Your task to perform on an android device: Search for logitech g pro on target, select the first entry, add it to the cart, then select checkout. Image 0: 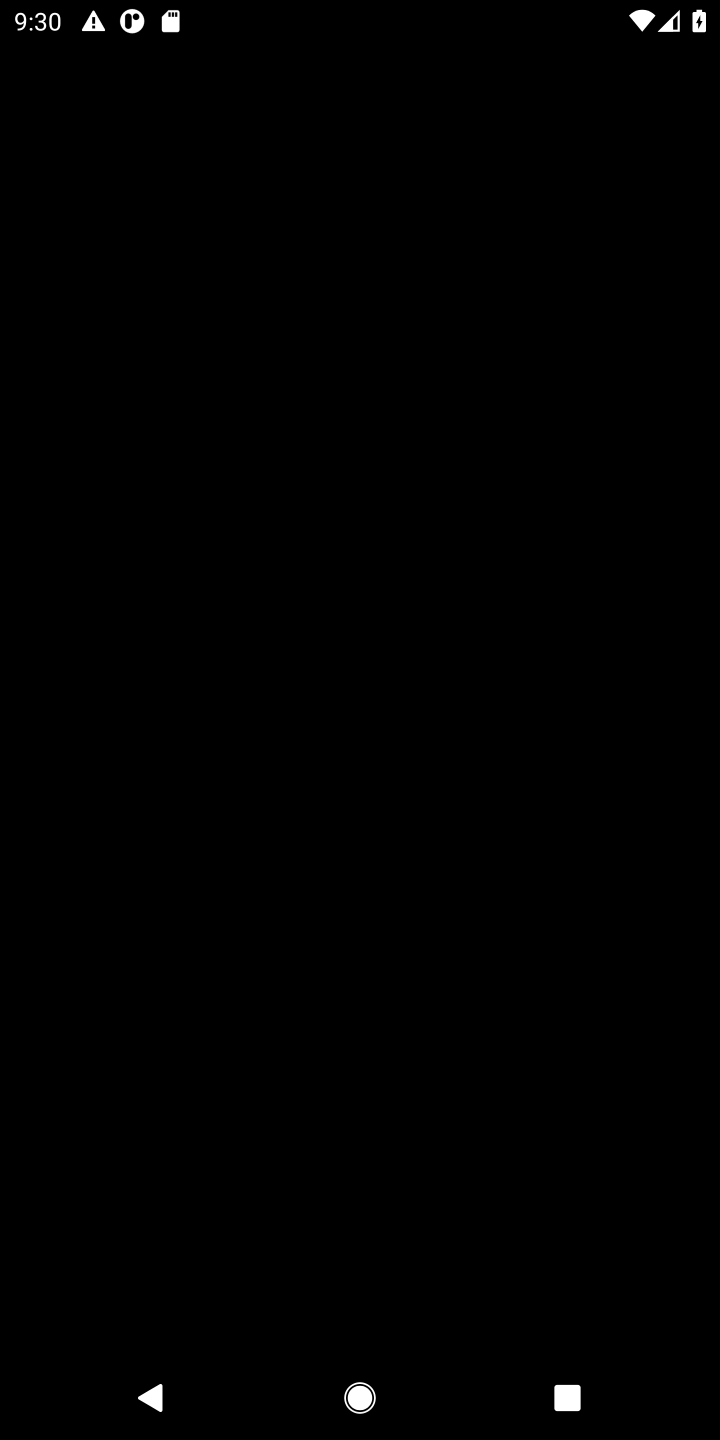
Step 0: press home button
Your task to perform on an android device: Search for logitech g pro on target, select the first entry, add it to the cart, then select checkout. Image 1: 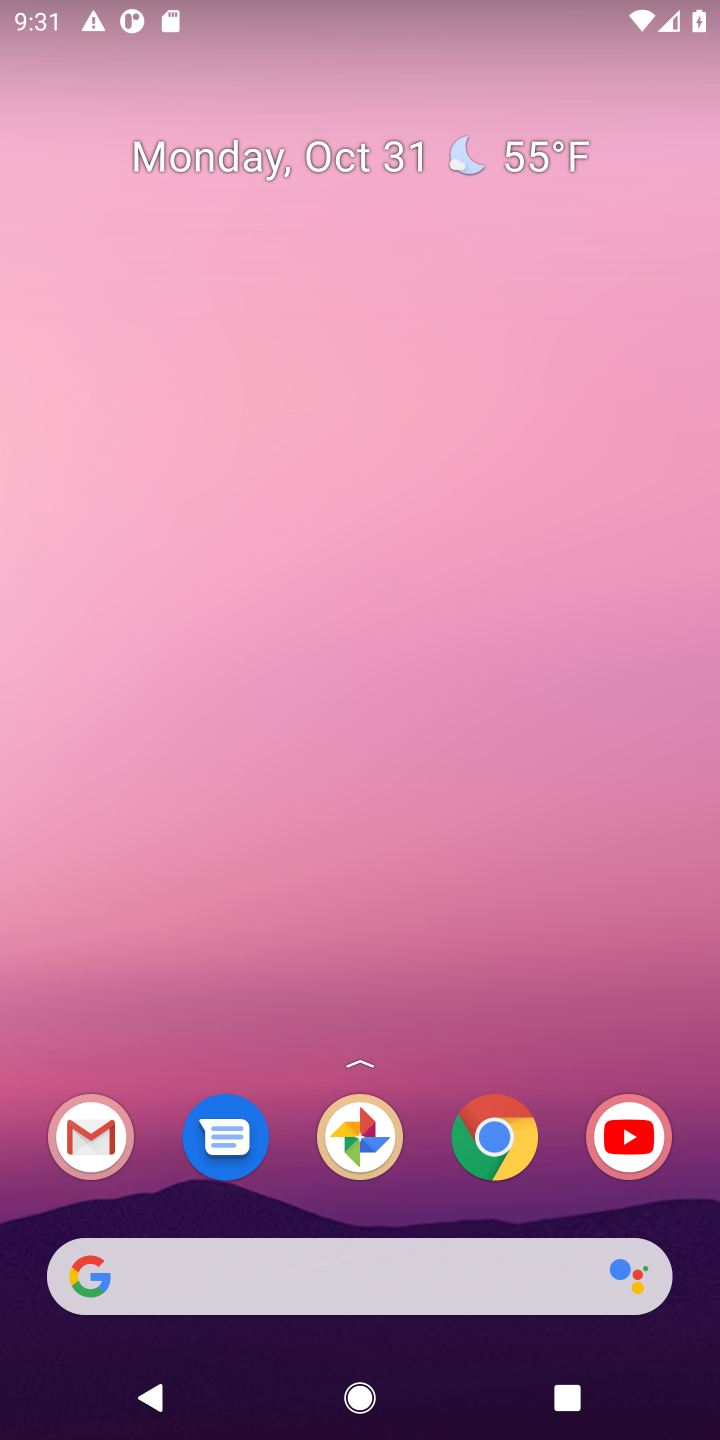
Step 1: click (526, 1153)
Your task to perform on an android device: Search for logitech g pro on target, select the first entry, add it to the cart, then select checkout. Image 2: 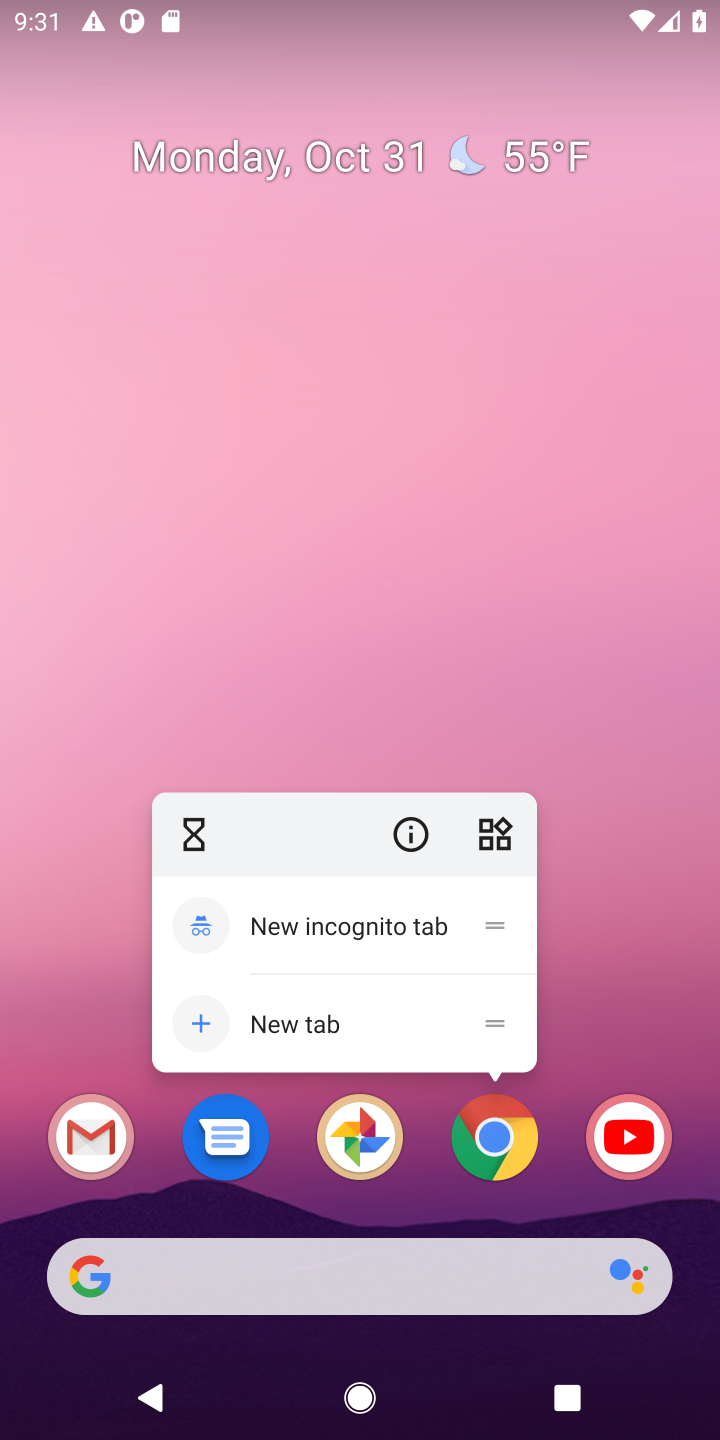
Step 2: click (492, 1145)
Your task to perform on an android device: Search for logitech g pro on target, select the first entry, add it to the cart, then select checkout. Image 3: 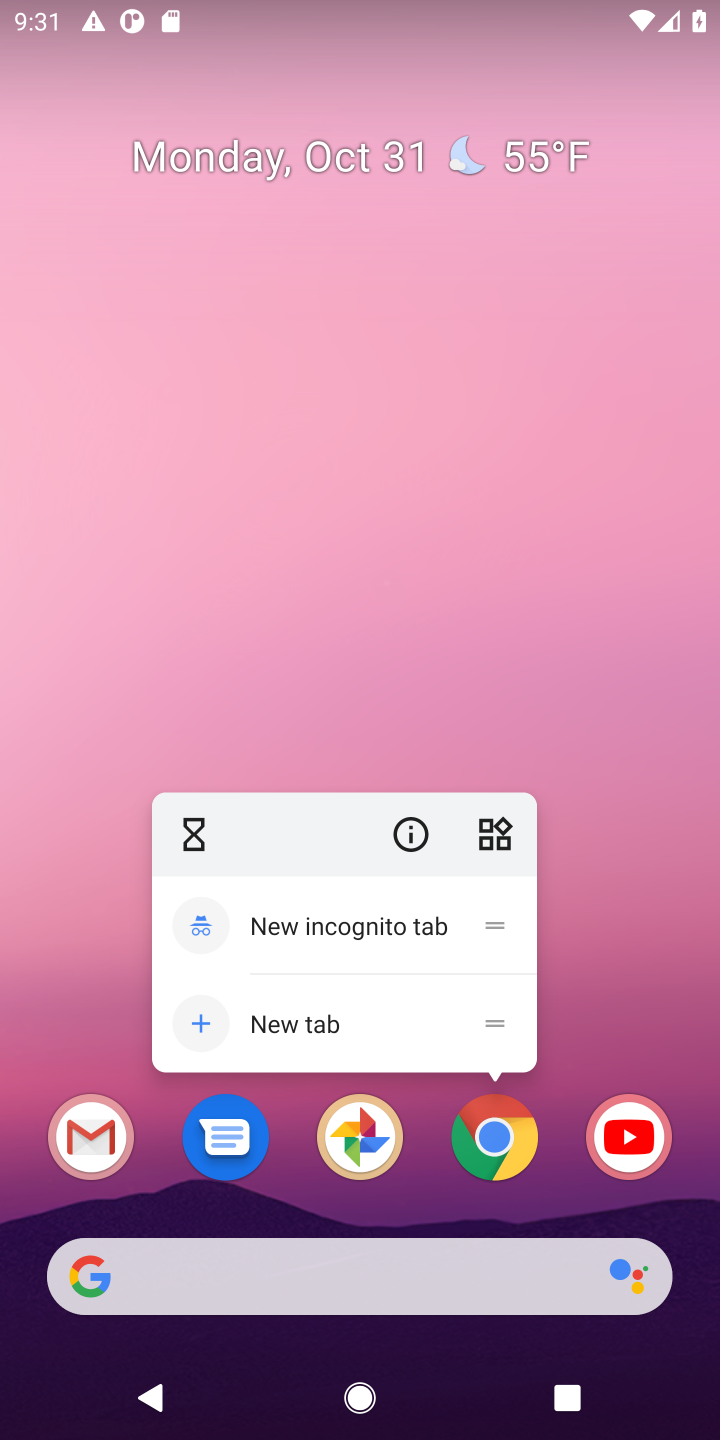
Step 3: click (492, 1145)
Your task to perform on an android device: Search for logitech g pro on target, select the first entry, add it to the cart, then select checkout. Image 4: 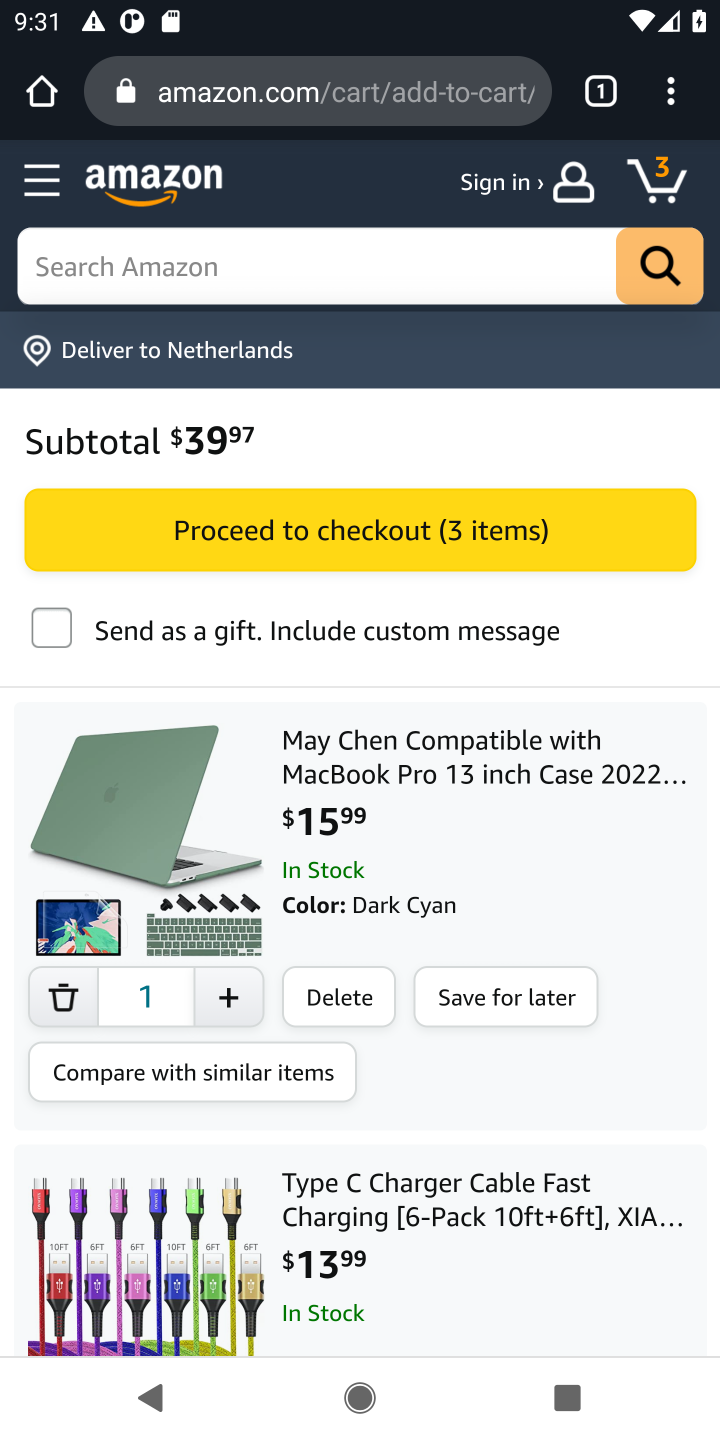
Step 4: click (300, 108)
Your task to perform on an android device: Search for logitech g pro on target, select the first entry, add it to the cart, then select checkout. Image 5: 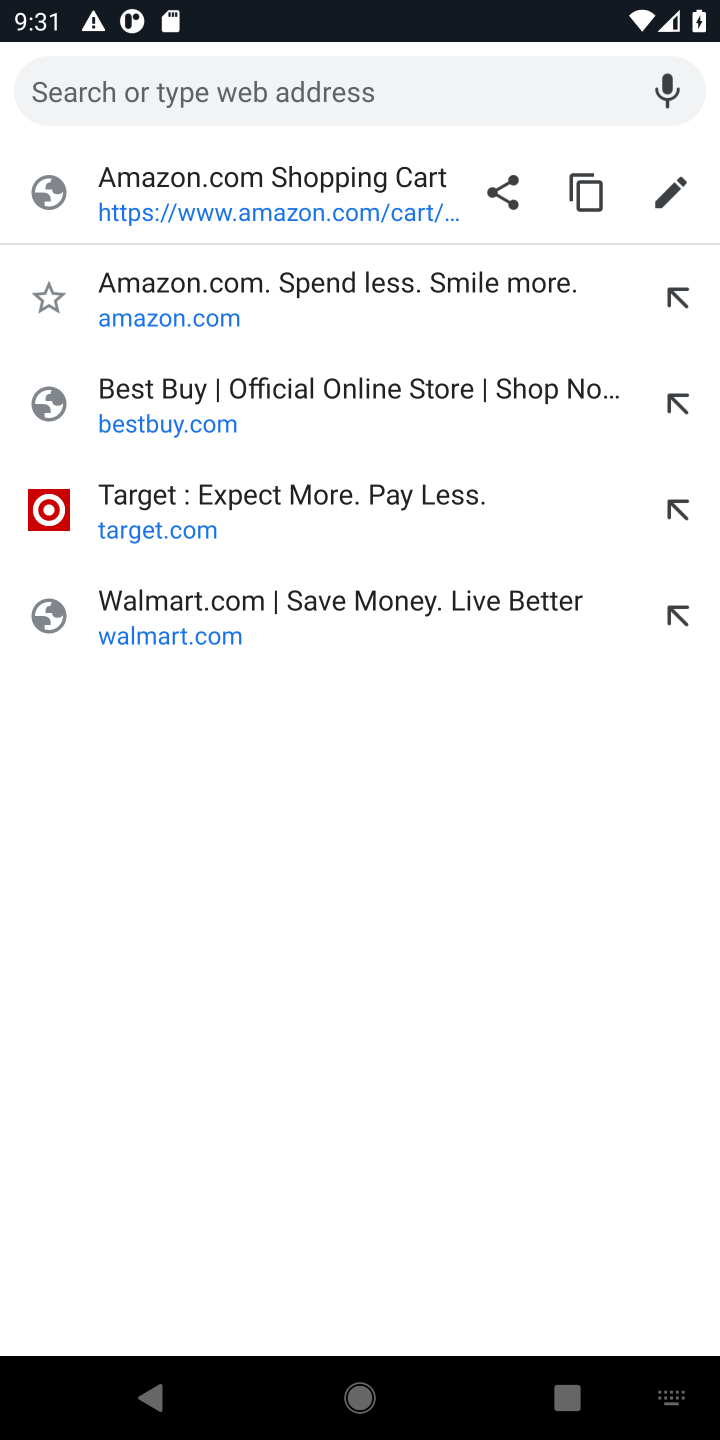
Step 5: type "target.com"
Your task to perform on an android device: Search for logitech g pro on target, select the first entry, add it to the cart, then select checkout. Image 6: 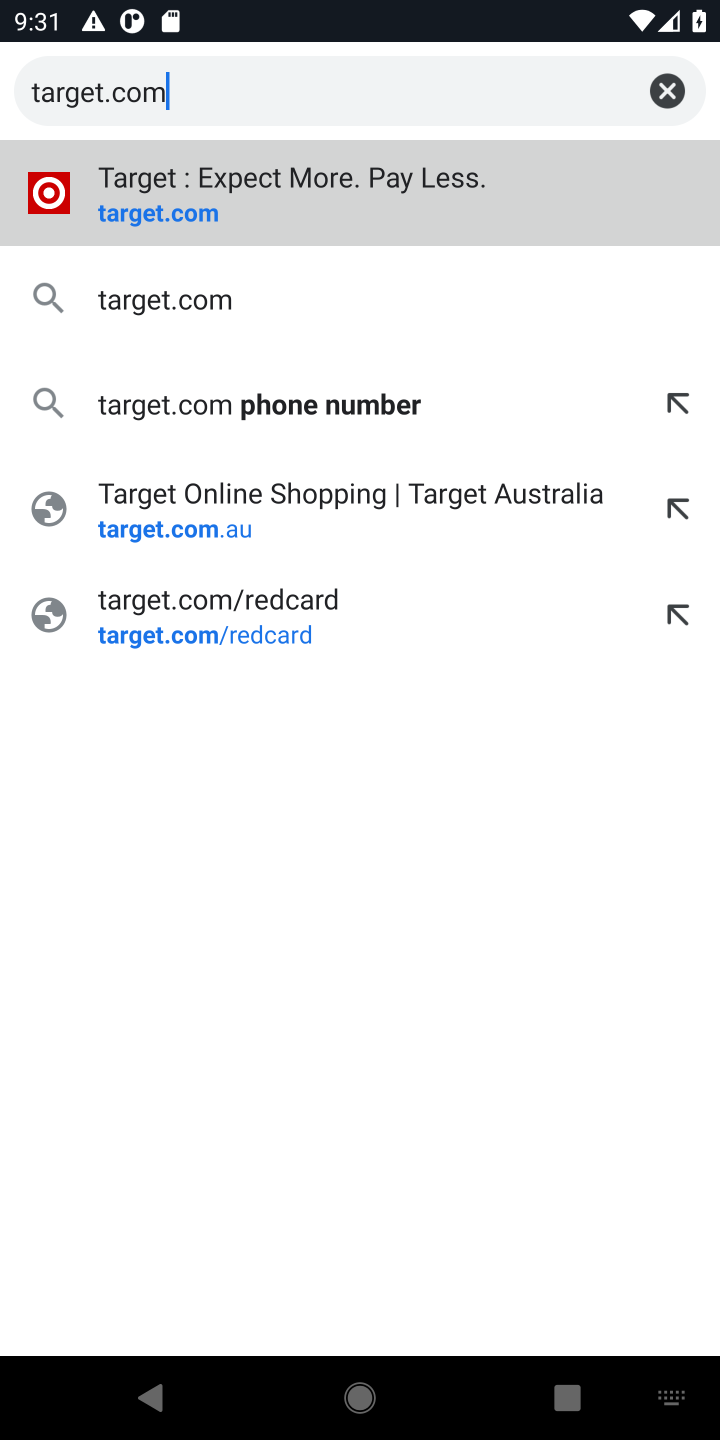
Step 6: click (162, 226)
Your task to perform on an android device: Search for logitech g pro on target, select the first entry, add it to the cart, then select checkout. Image 7: 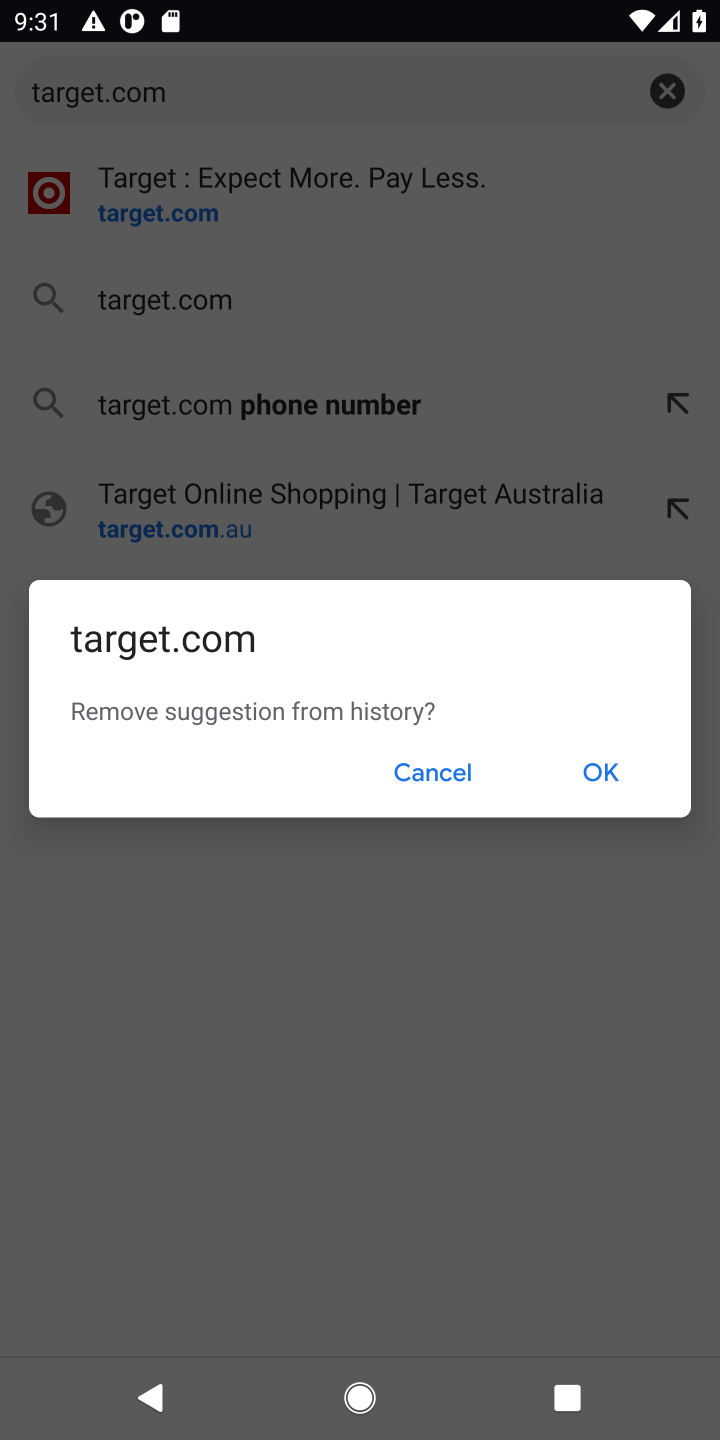
Step 7: click (446, 784)
Your task to perform on an android device: Search for logitech g pro on target, select the first entry, add it to the cart, then select checkout. Image 8: 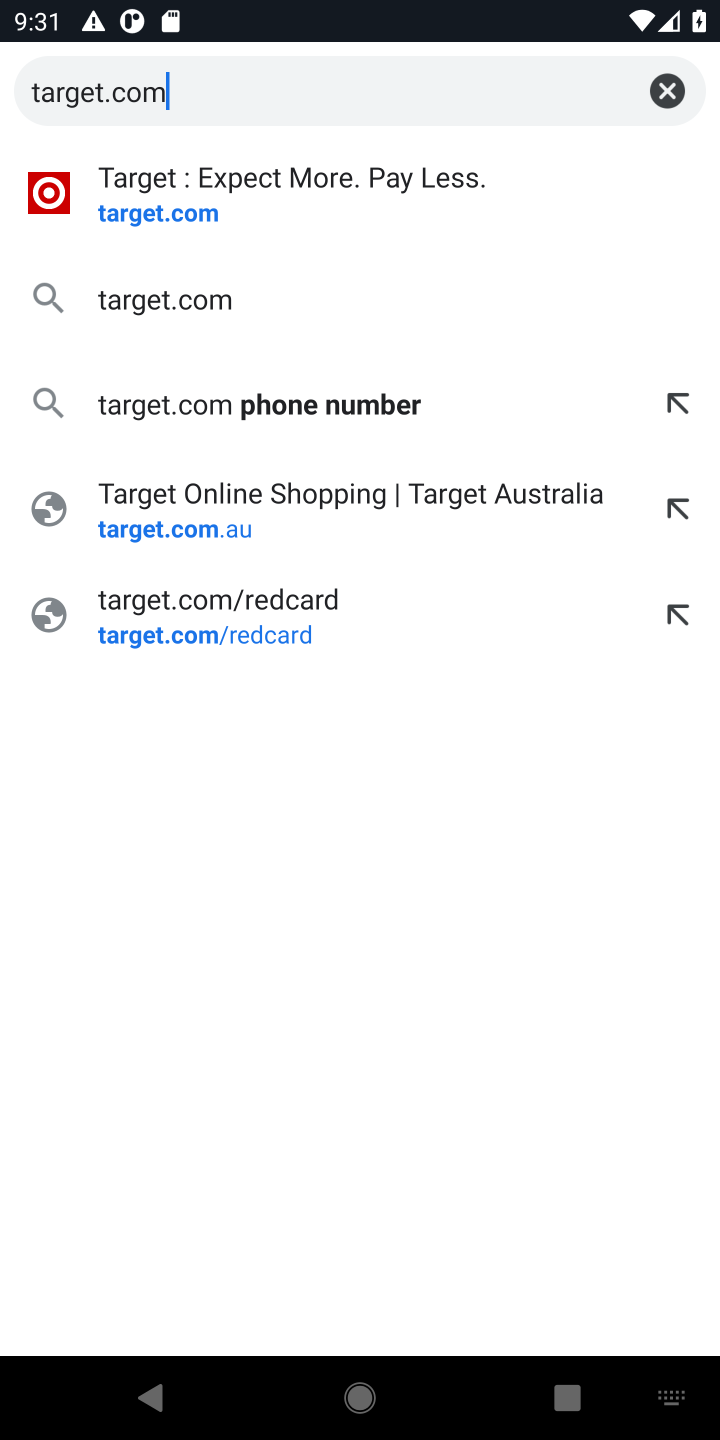
Step 8: click (229, 196)
Your task to perform on an android device: Search for logitech g pro on target, select the first entry, add it to the cart, then select checkout. Image 9: 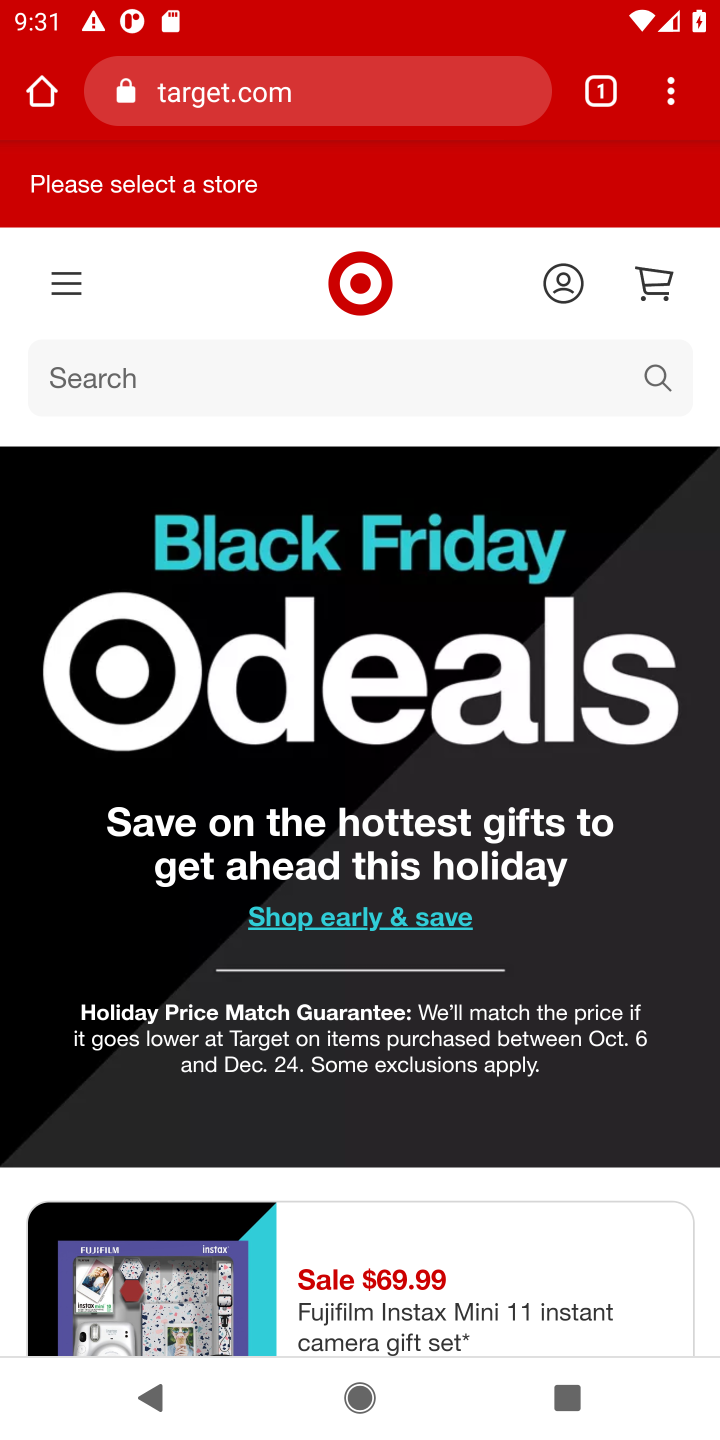
Step 9: click (136, 396)
Your task to perform on an android device: Search for logitech g pro on target, select the first entry, add it to the cart, then select checkout. Image 10: 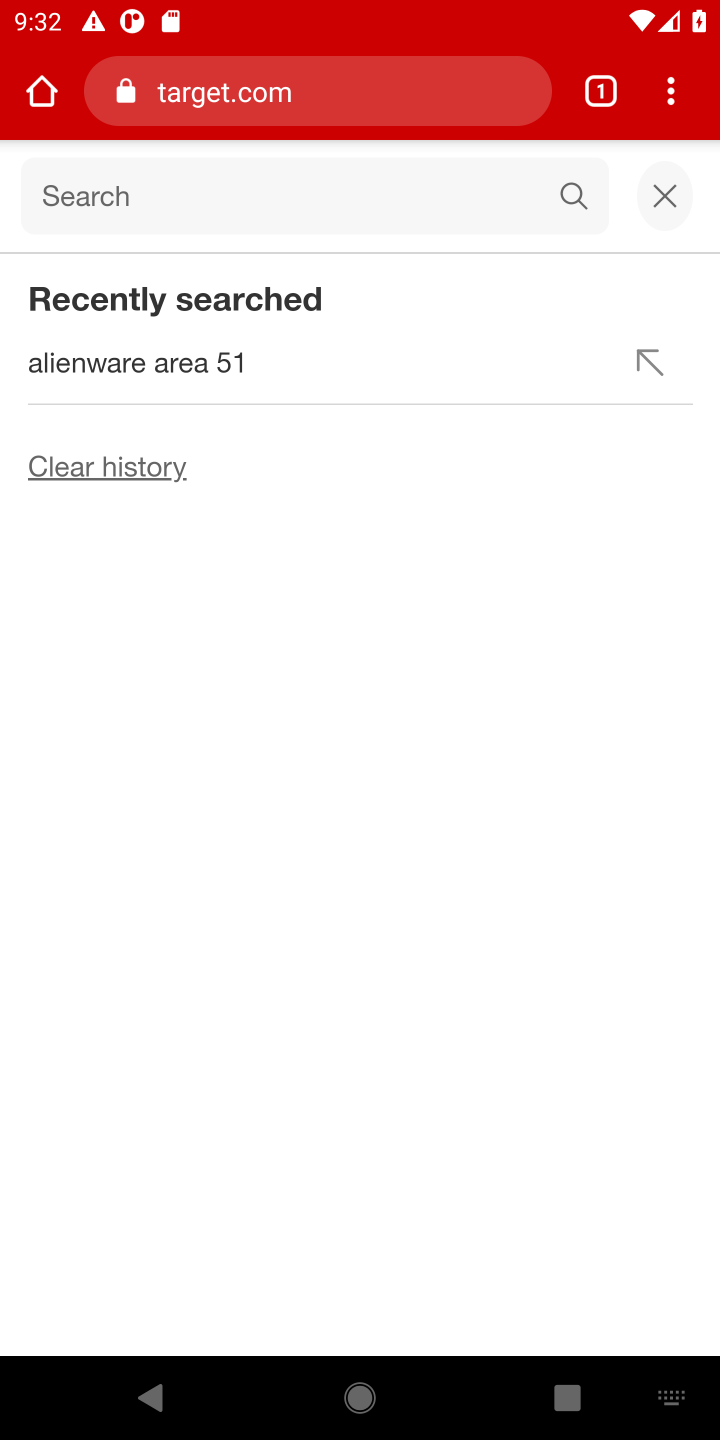
Step 10: type "logitech g pro"
Your task to perform on an android device: Search for logitech g pro on target, select the first entry, add it to the cart, then select checkout. Image 11: 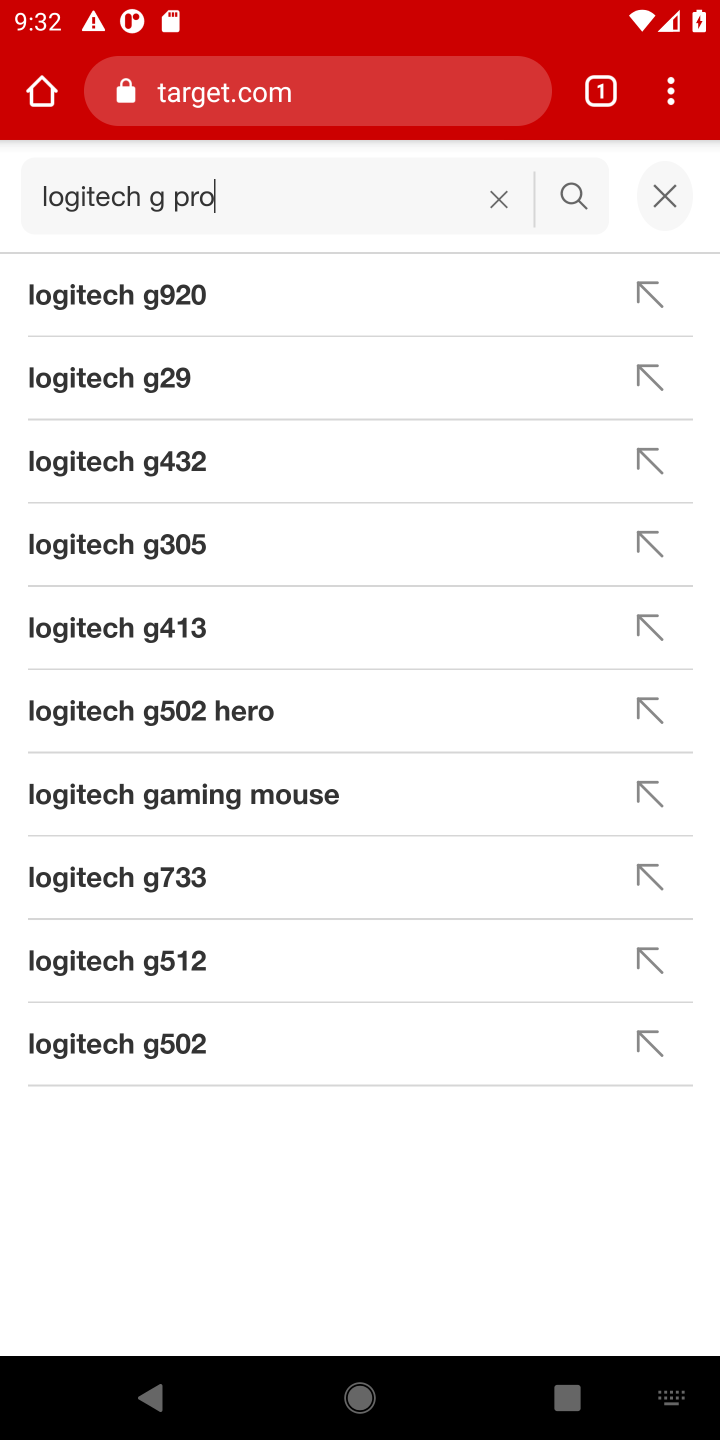
Step 11: click (566, 188)
Your task to perform on an android device: Search for logitech g pro on target, select the first entry, add it to the cart, then select checkout. Image 12: 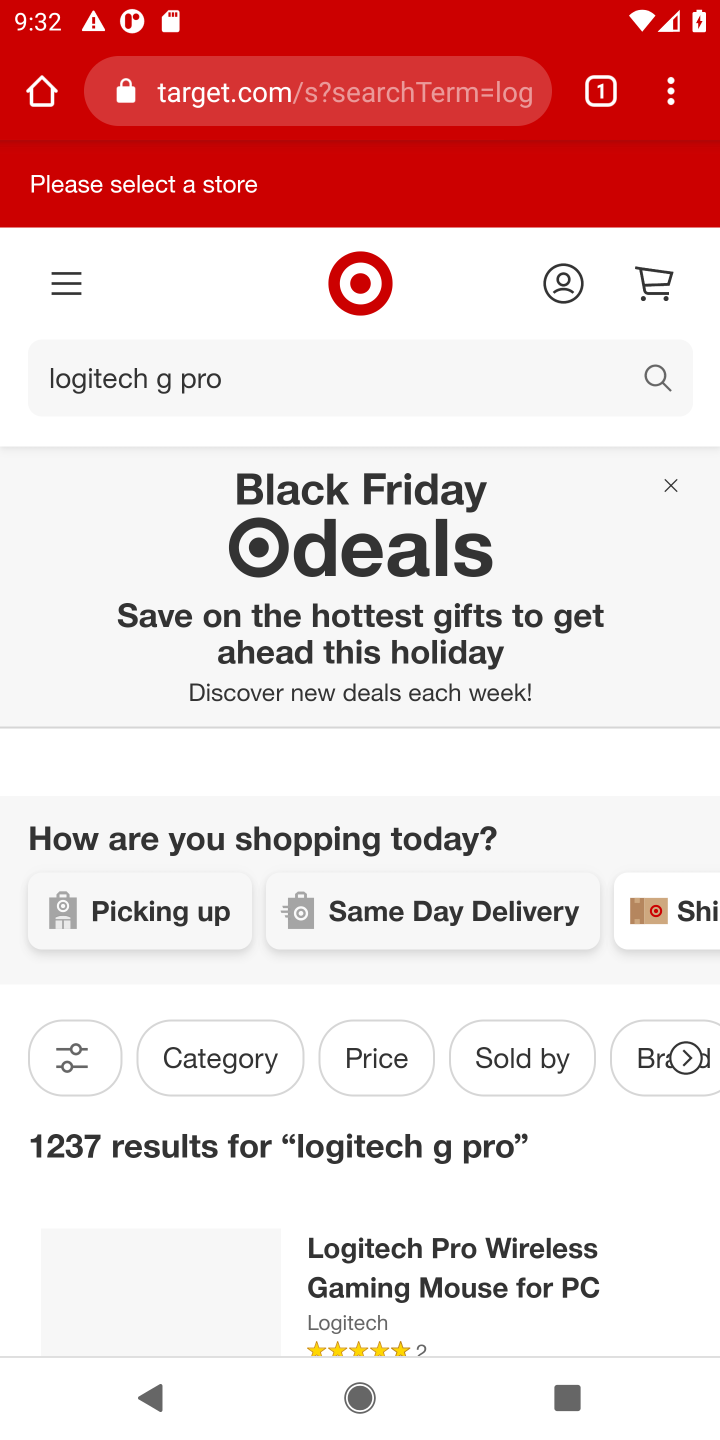
Step 12: task complete